Your task to perform on an android device: Set the phone to "Do not disturb". Image 0: 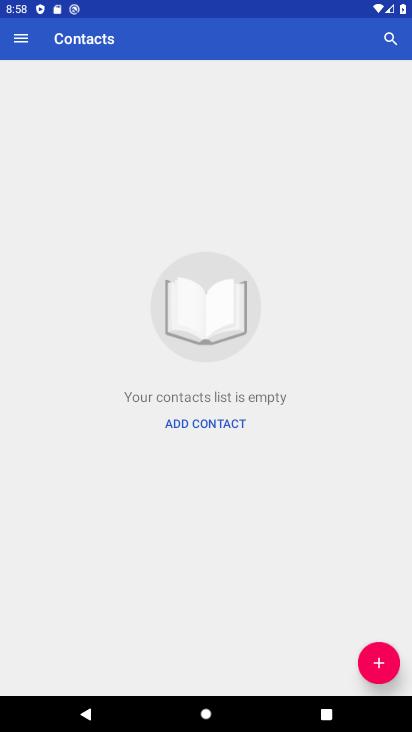
Step 0: press home button
Your task to perform on an android device: Set the phone to "Do not disturb". Image 1: 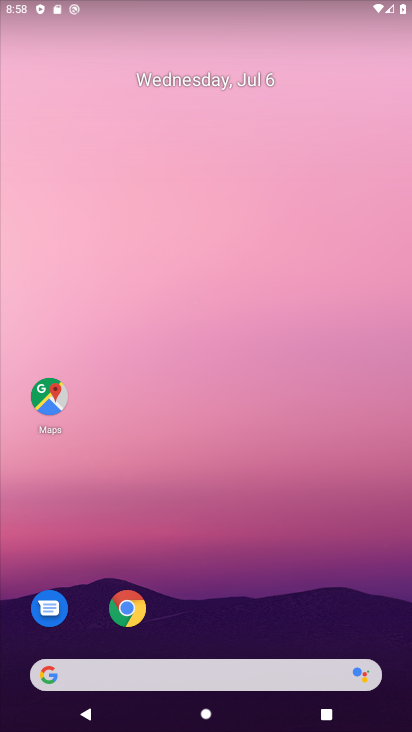
Step 1: drag from (295, 625) to (205, 217)
Your task to perform on an android device: Set the phone to "Do not disturb". Image 2: 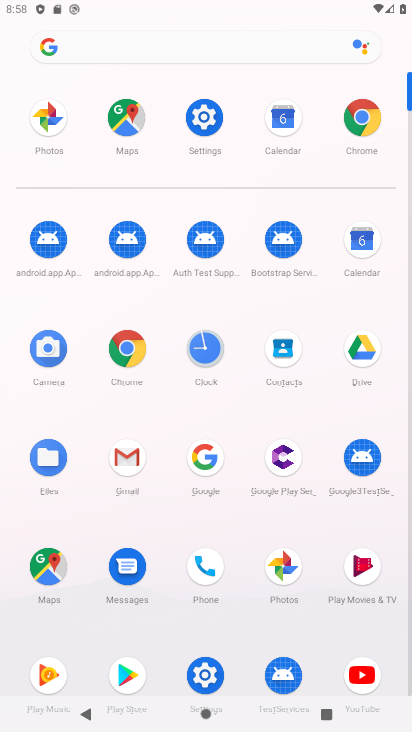
Step 2: click (208, 125)
Your task to perform on an android device: Set the phone to "Do not disturb". Image 3: 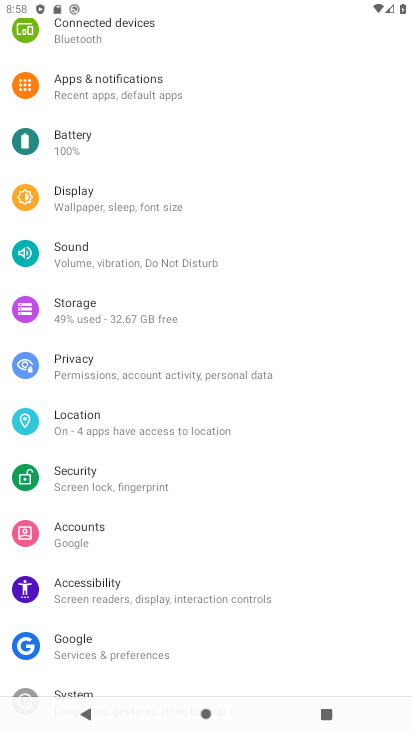
Step 3: click (252, 264)
Your task to perform on an android device: Set the phone to "Do not disturb". Image 4: 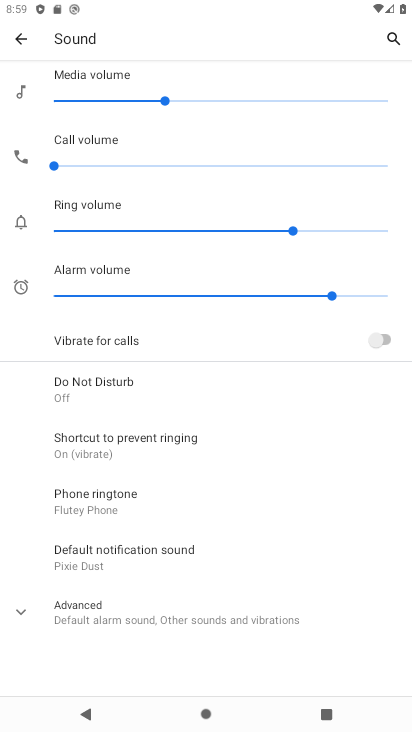
Step 4: click (279, 383)
Your task to perform on an android device: Set the phone to "Do not disturb". Image 5: 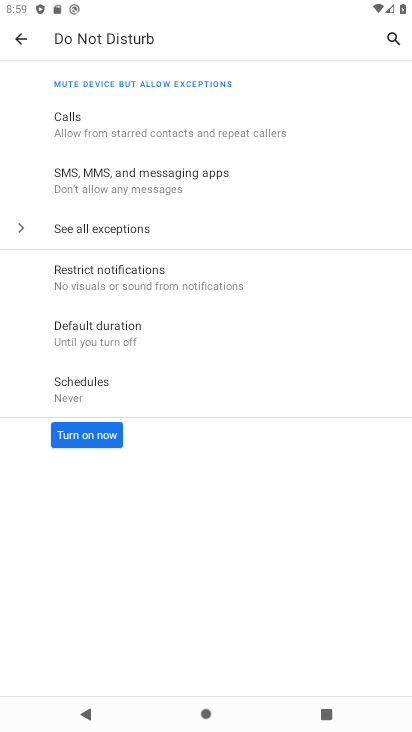
Step 5: click (70, 435)
Your task to perform on an android device: Set the phone to "Do not disturb". Image 6: 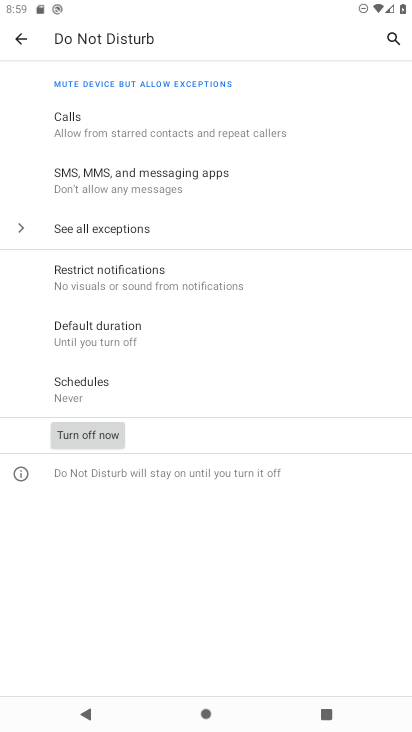
Step 6: task complete